Your task to perform on an android device: toggle airplane mode Image 0: 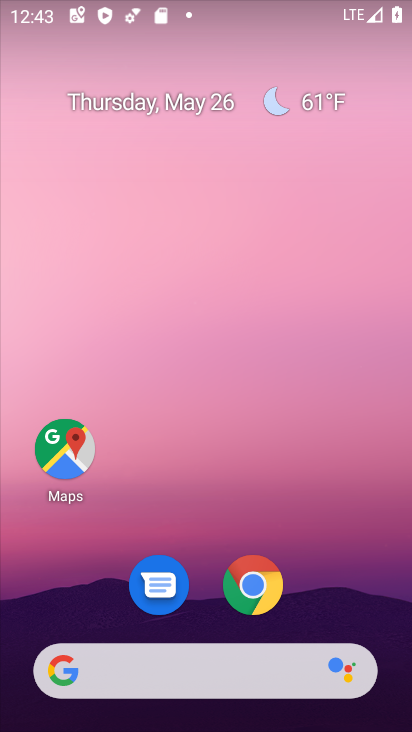
Step 0: drag from (218, 495) to (242, 18)
Your task to perform on an android device: toggle airplane mode Image 1: 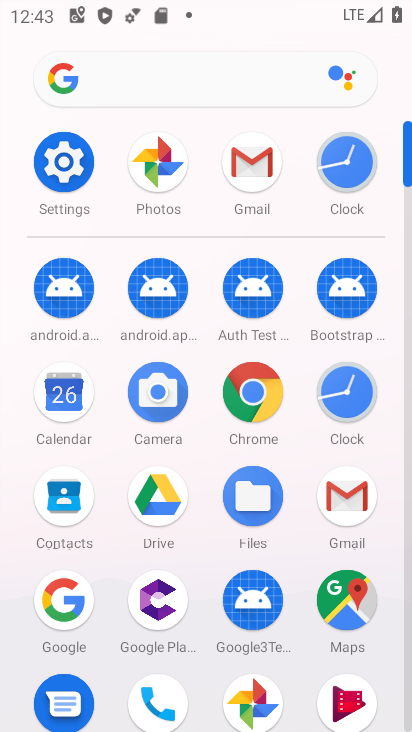
Step 1: click (88, 159)
Your task to perform on an android device: toggle airplane mode Image 2: 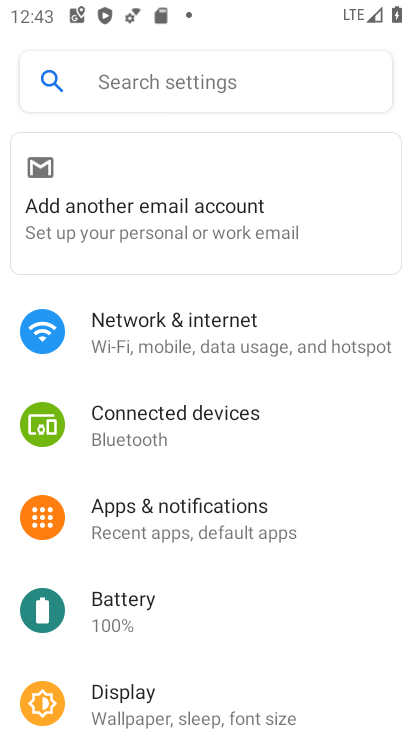
Step 2: click (257, 338)
Your task to perform on an android device: toggle airplane mode Image 3: 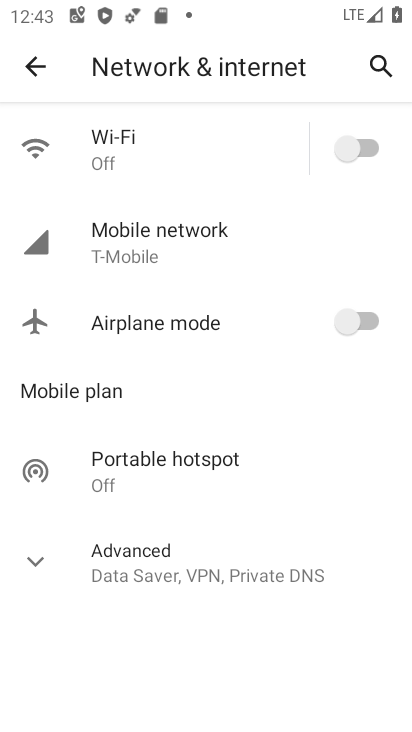
Step 3: click (356, 321)
Your task to perform on an android device: toggle airplane mode Image 4: 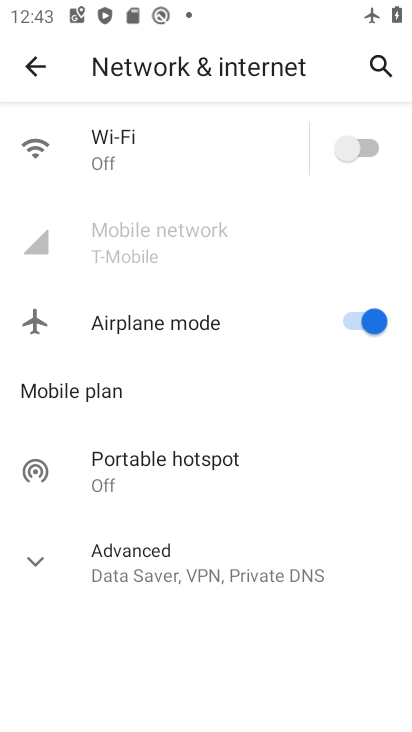
Step 4: task complete